Your task to perform on an android device: refresh tabs in the chrome app Image 0: 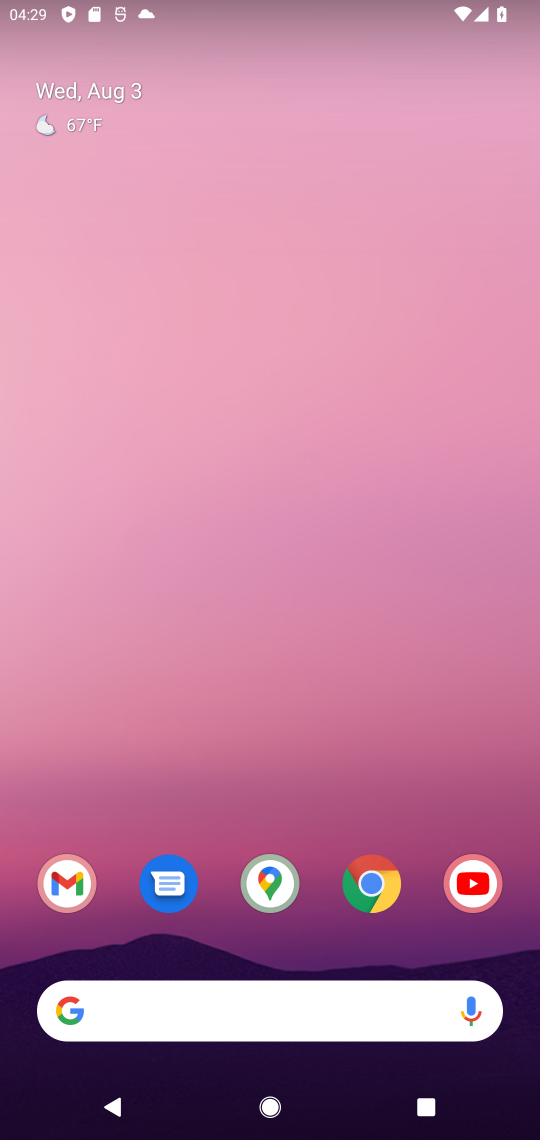
Step 0: click (380, 879)
Your task to perform on an android device: refresh tabs in the chrome app Image 1: 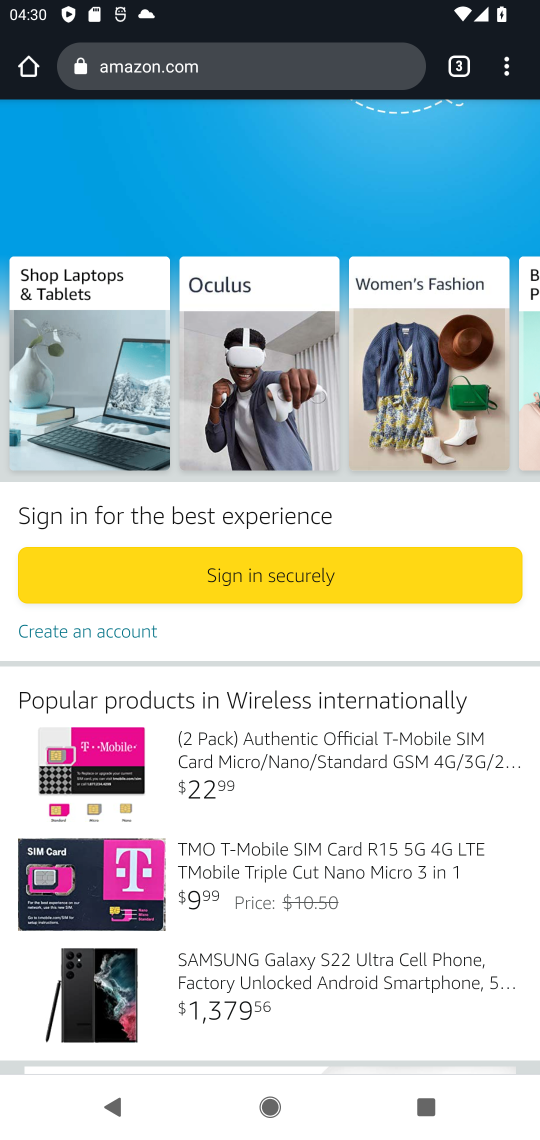
Step 1: click (509, 72)
Your task to perform on an android device: refresh tabs in the chrome app Image 2: 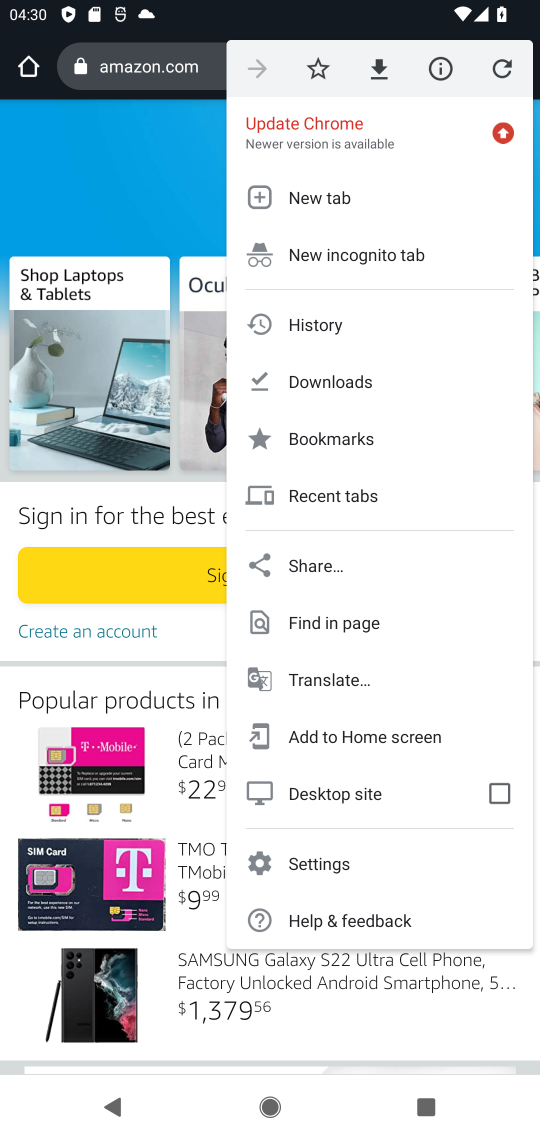
Step 2: click (503, 65)
Your task to perform on an android device: refresh tabs in the chrome app Image 3: 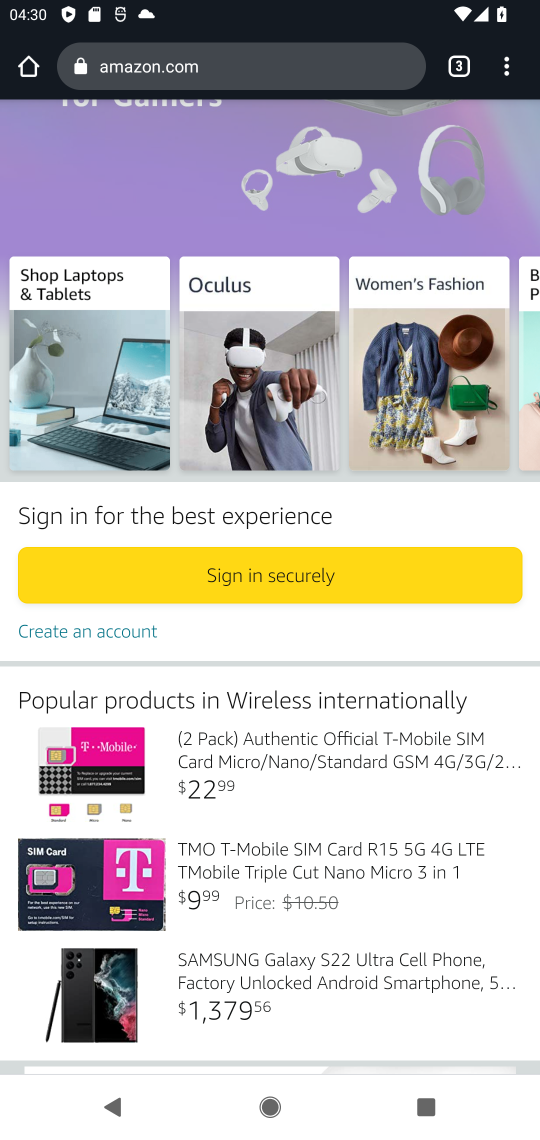
Step 3: task complete